Your task to perform on an android device: Show me the best rated 42 inch TV on Walmart. Image 0: 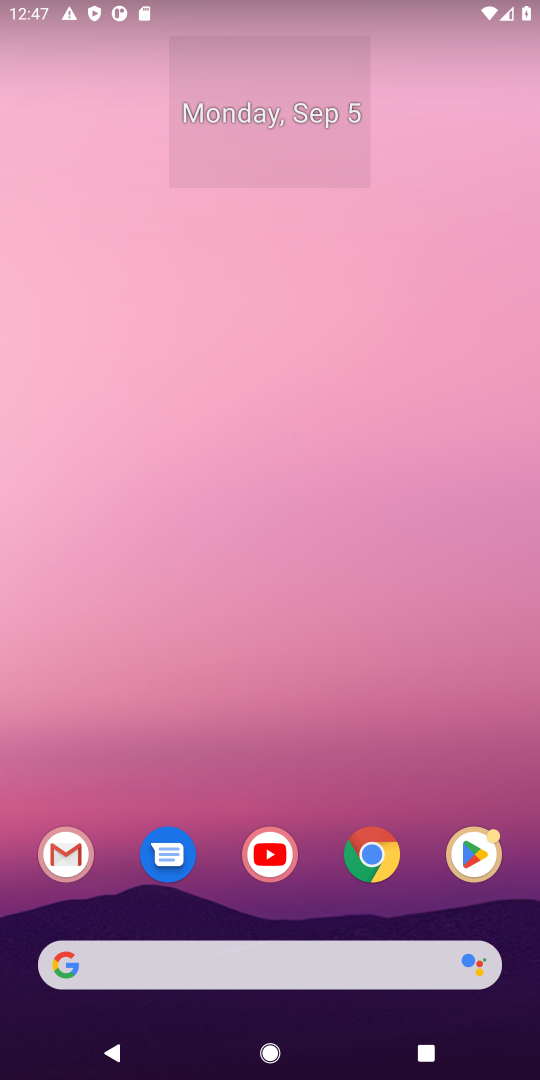
Step 0: press home button
Your task to perform on an android device: Show me the best rated 42 inch TV on Walmart. Image 1: 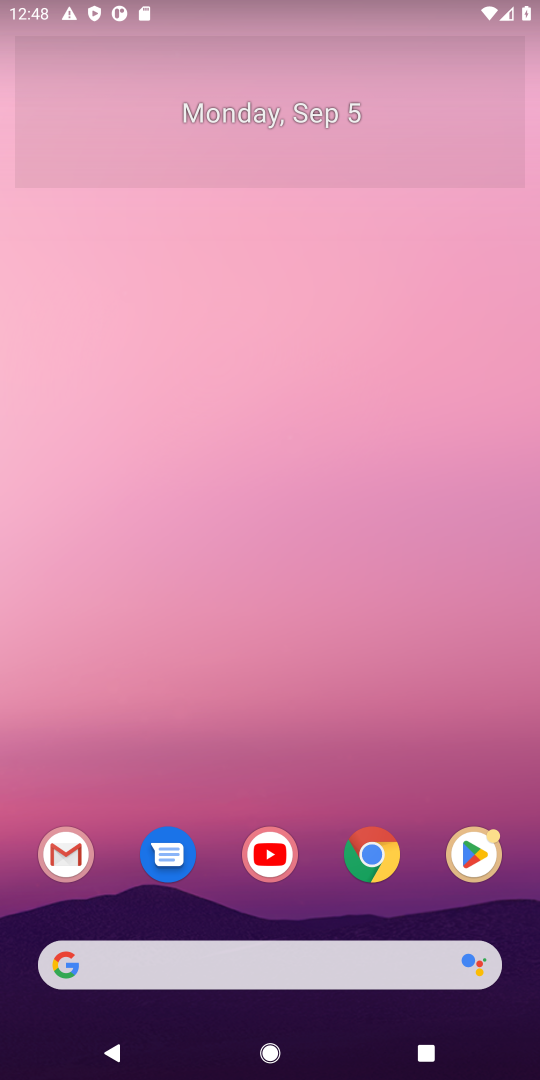
Step 1: click (318, 961)
Your task to perform on an android device: Show me the best rated 42 inch TV on Walmart. Image 2: 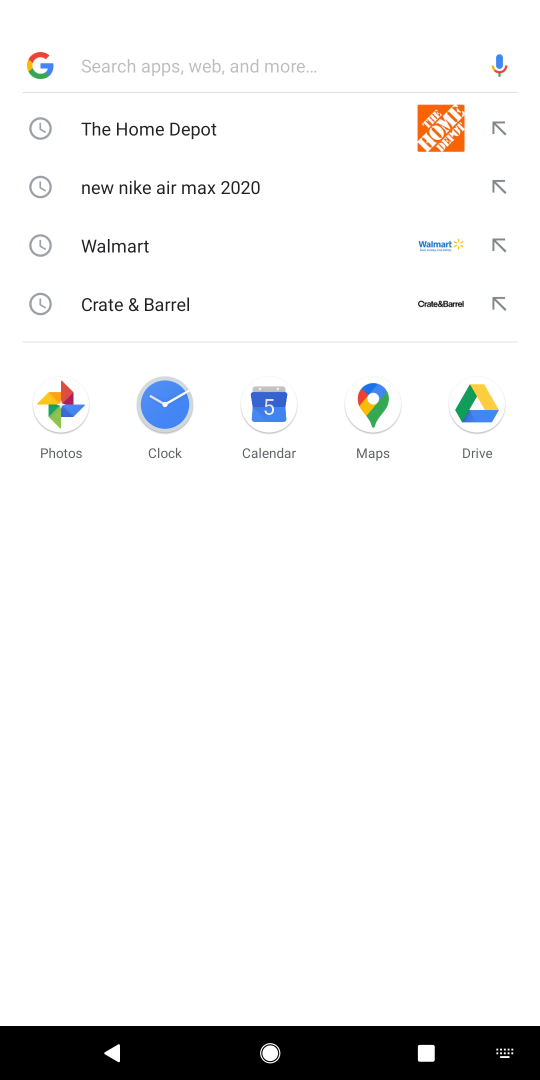
Step 2: press enter
Your task to perform on an android device: Show me the best rated 42 inch TV on Walmart. Image 3: 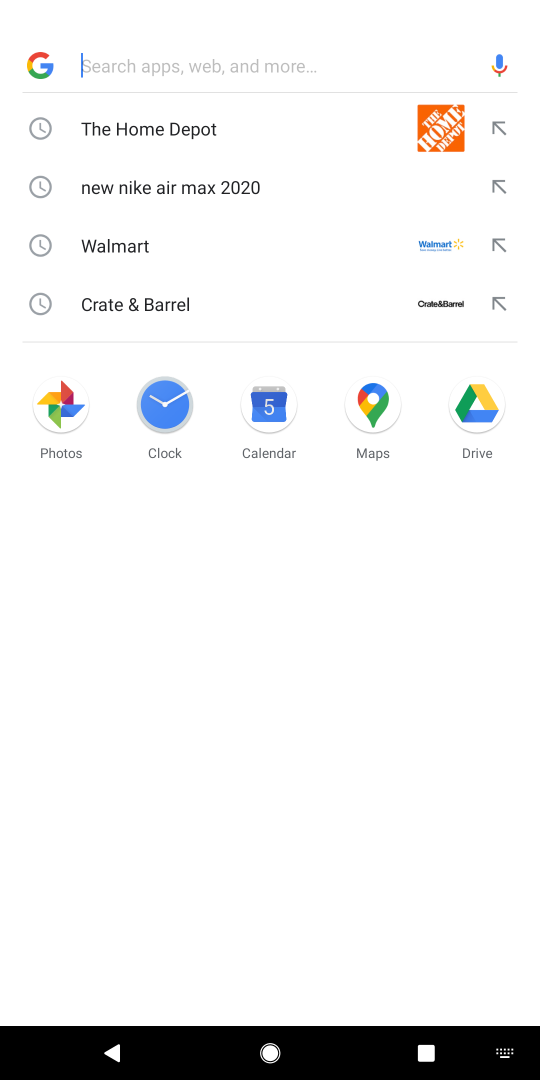
Step 3: type "walmart"
Your task to perform on an android device: Show me the best rated 42 inch TV on Walmart. Image 4: 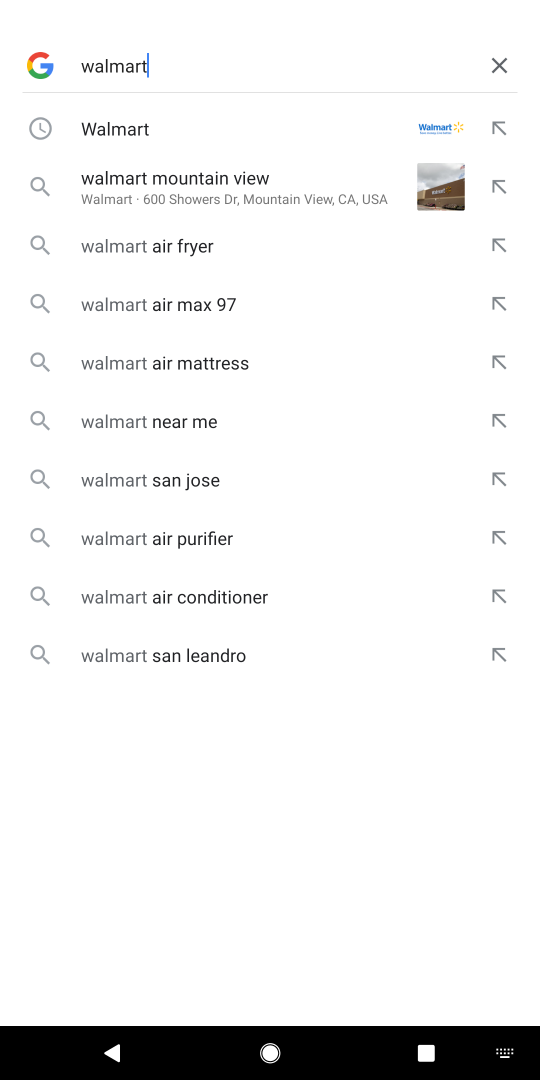
Step 4: click (154, 114)
Your task to perform on an android device: Show me the best rated 42 inch TV on Walmart. Image 5: 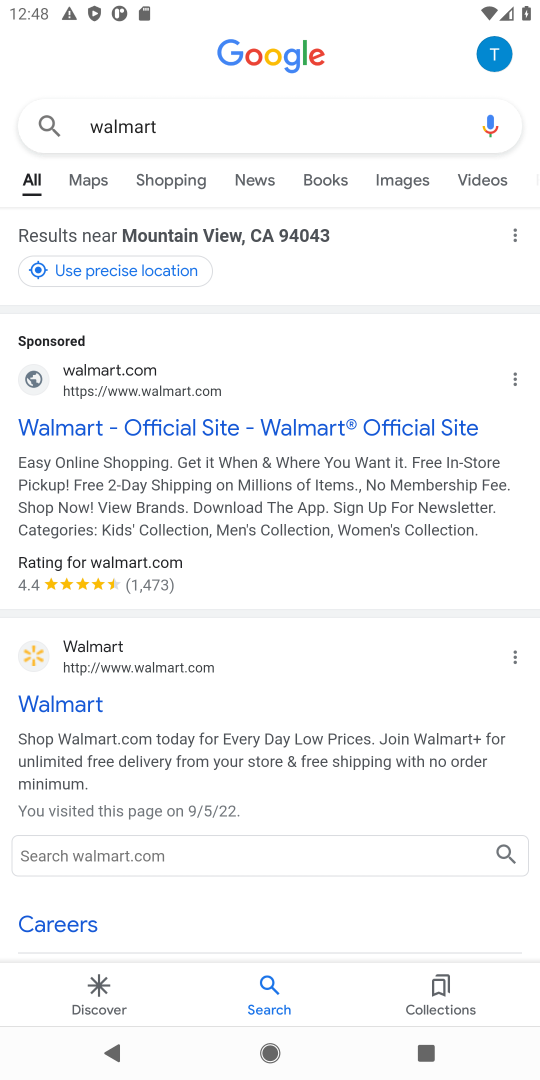
Step 5: click (182, 419)
Your task to perform on an android device: Show me the best rated 42 inch TV on Walmart. Image 6: 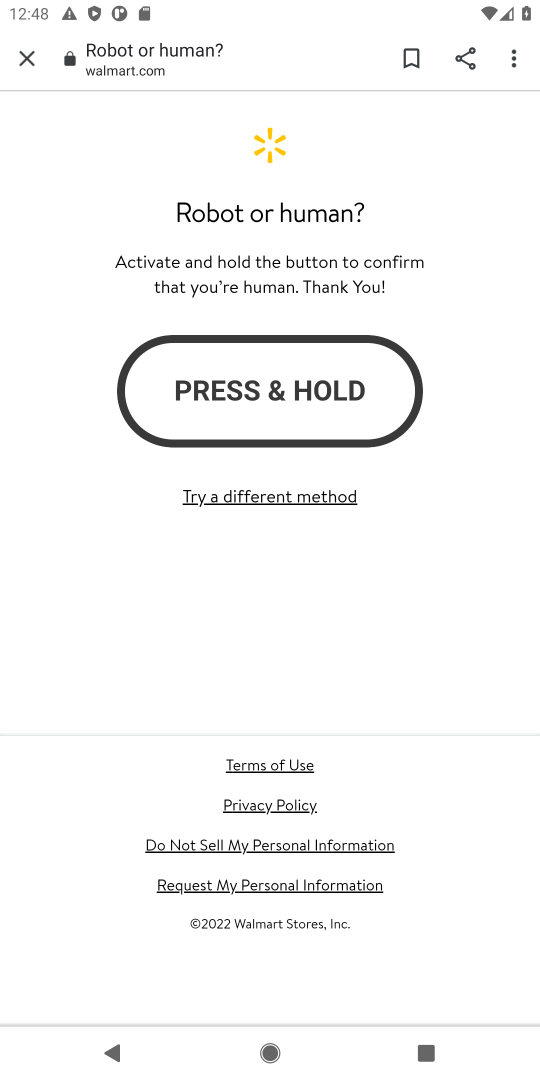
Step 6: drag from (370, 749) to (382, 281)
Your task to perform on an android device: Show me the best rated 42 inch TV on Walmart. Image 7: 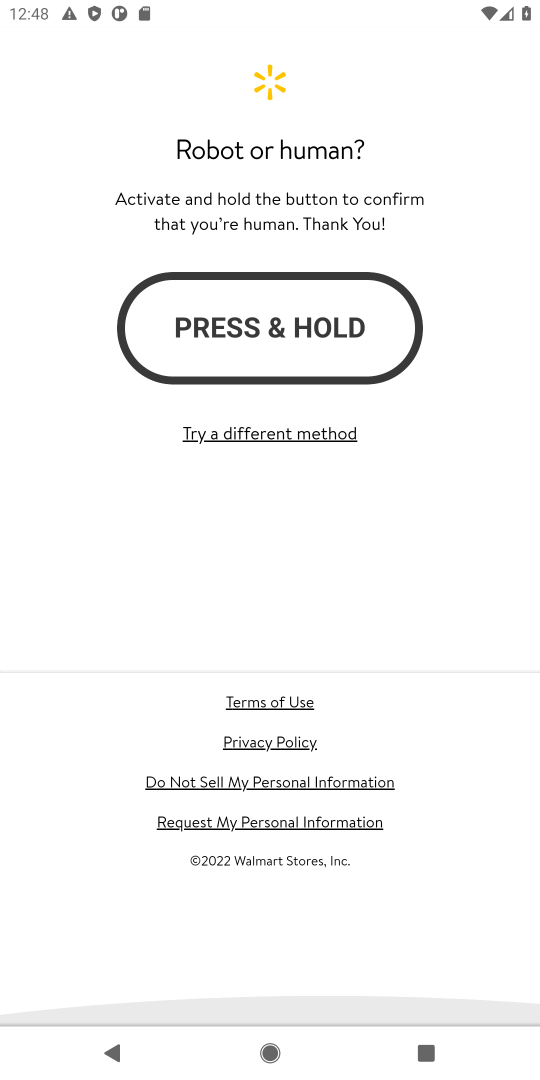
Step 7: drag from (468, 157) to (494, 806)
Your task to perform on an android device: Show me the best rated 42 inch TV on Walmart. Image 8: 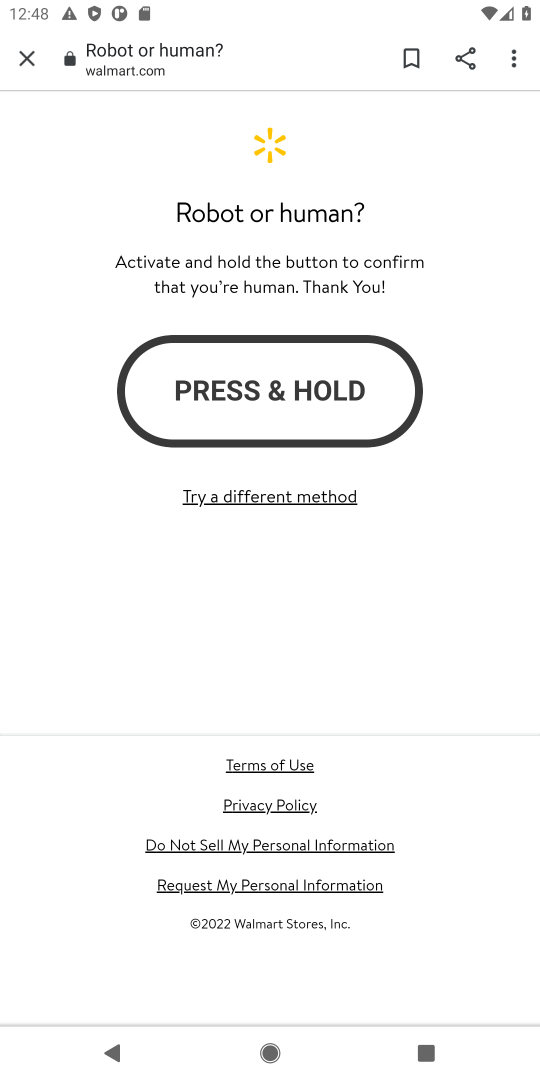
Step 8: click (223, 384)
Your task to perform on an android device: Show me the best rated 42 inch TV on Walmart. Image 9: 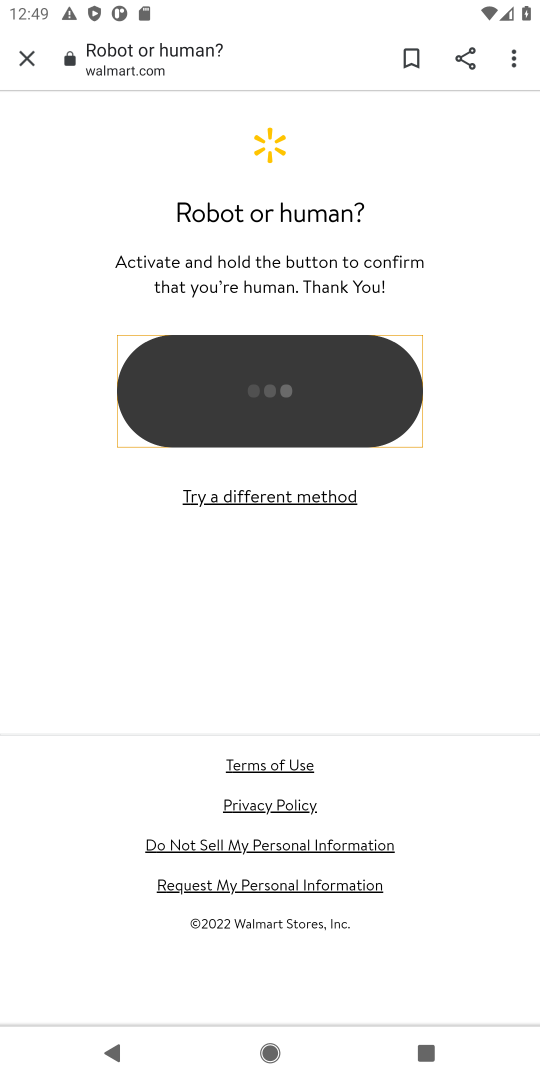
Step 9: task complete